Your task to perform on an android device: Search for Italian restaurants on Maps Image 0: 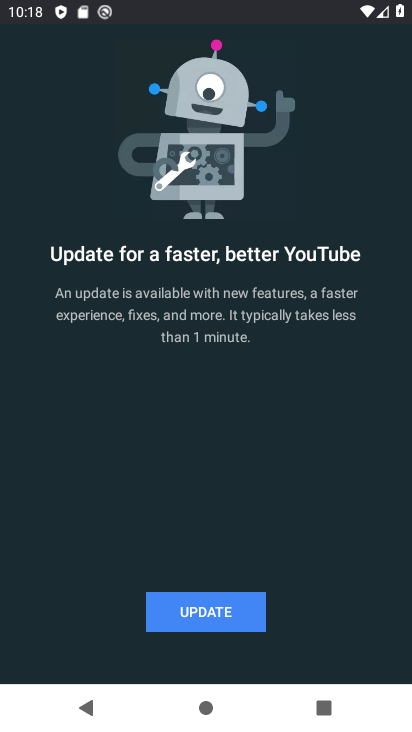
Step 0: click (244, 609)
Your task to perform on an android device: Search for Italian restaurants on Maps Image 1: 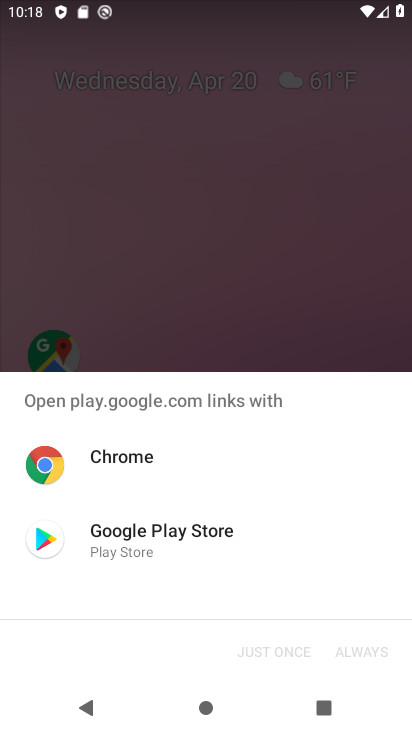
Step 1: press home button
Your task to perform on an android device: Search for Italian restaurants on Maps Image 2: 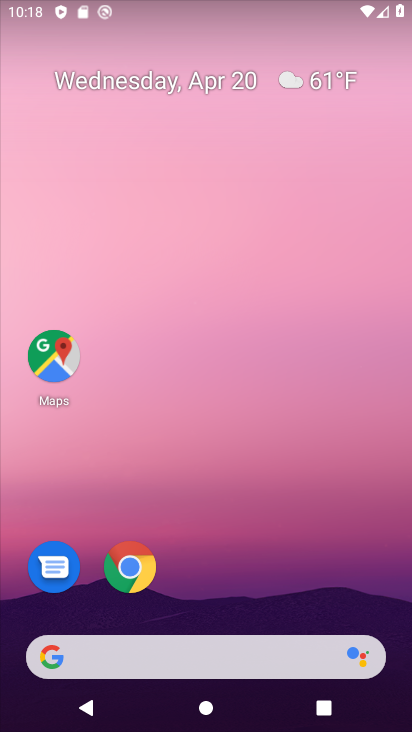
Step 2: click (61, 358)
Your task to perform on an android device: Search for Italian restaurants on Maps Image 3: 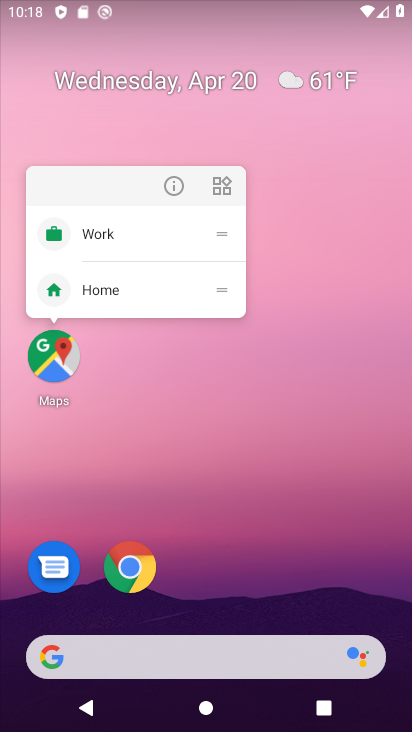
Step 3: click (62, 346)
Your task to perform on an android device: Search for Italian restaurants on Maps Image 4: 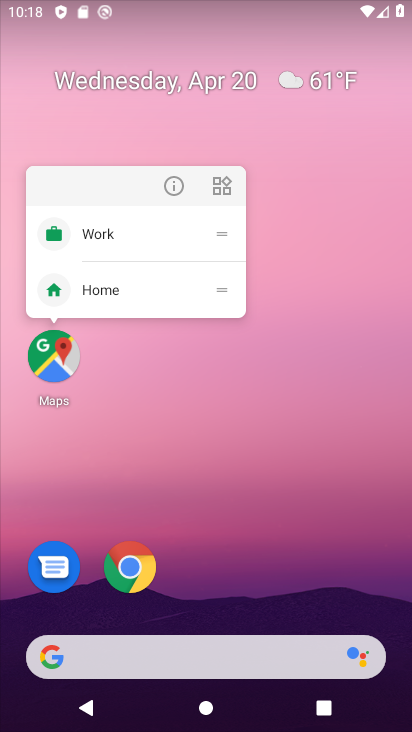
Step 4: click (58, 369)
Your task to perform on an android device: Search for Italian restaurants on Maps Image 5: 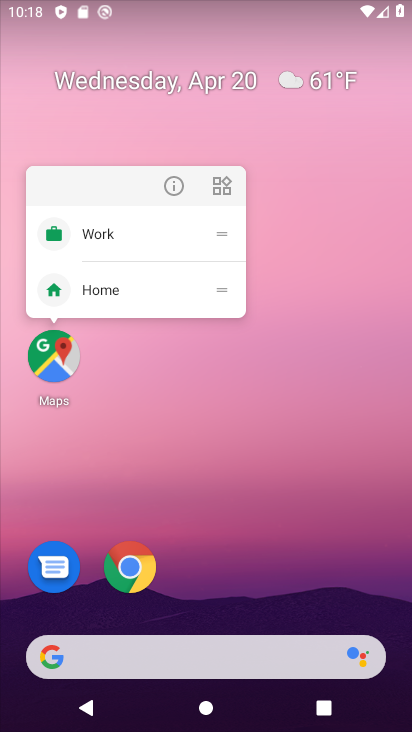
Step 5: click (56, 361)
Your task to perform on an android device: Search for Italian restaurants on Maps Image 6: 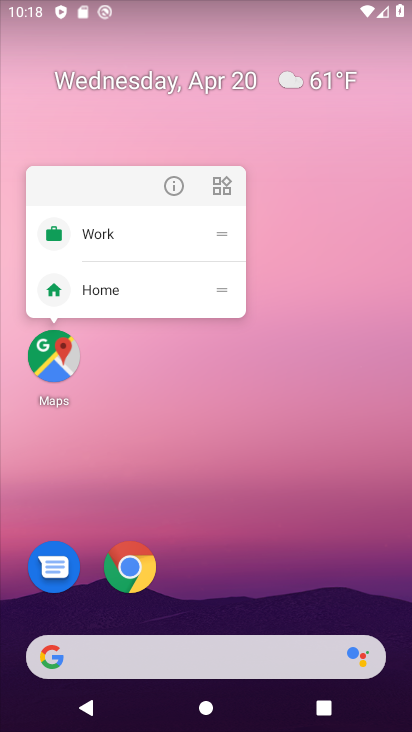
Step 6: click (59, 360)
Your task to perform on an android device: Search for Italian restaurants on Maps Image 7: 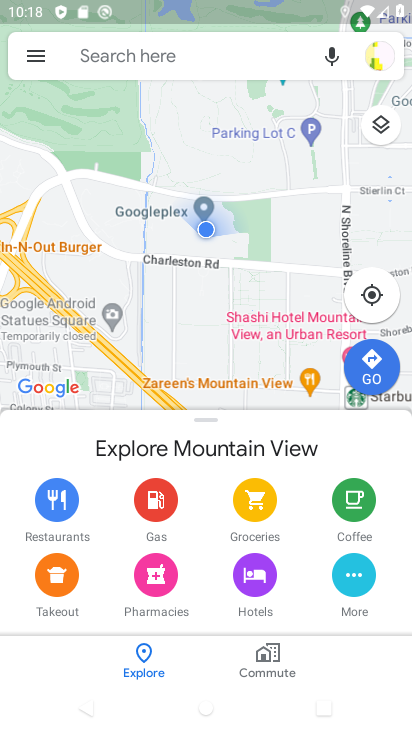
Step 7: click (176, 55)
Your task to perform on an android device: Search for Italian restaurants on Maps Image 8: 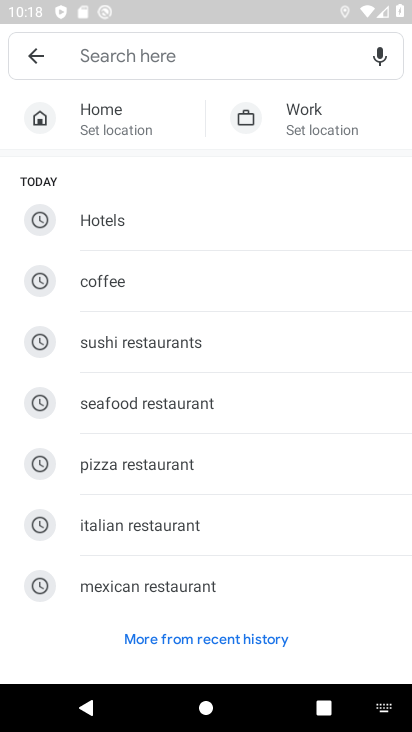
Step 8: click (130, 526)
Your task to perform on an android device: Search for Italian restaurants on Maps Image 9: 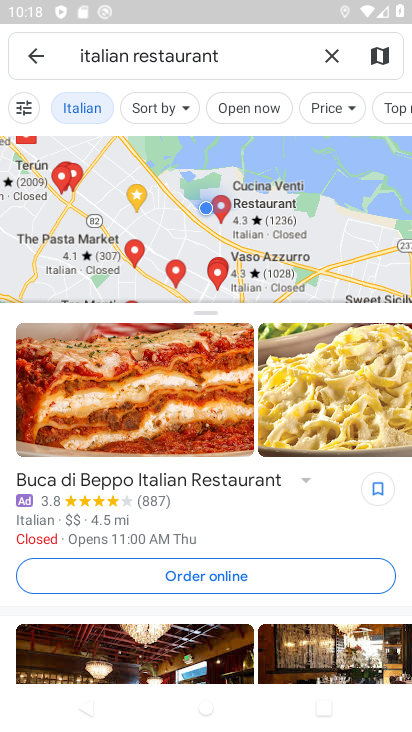
Step 9: task complete